Your task to perform on an android device: Open calendar and show me the fourth week of next month Image 0: 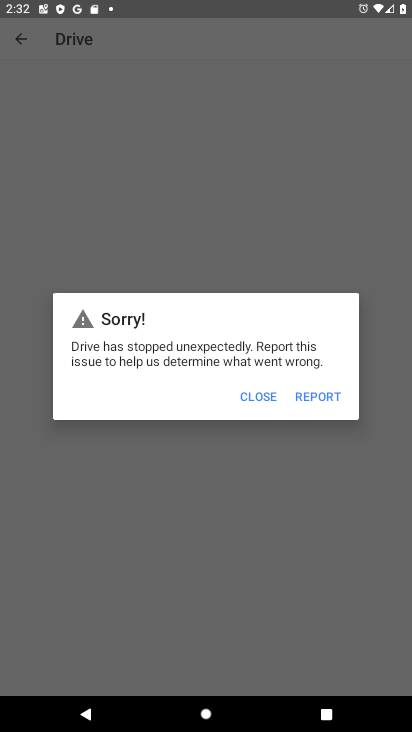
Step 0: press home button
Your task to perform on an android device: Open calendar and show me the fourth week of next month Image 1: 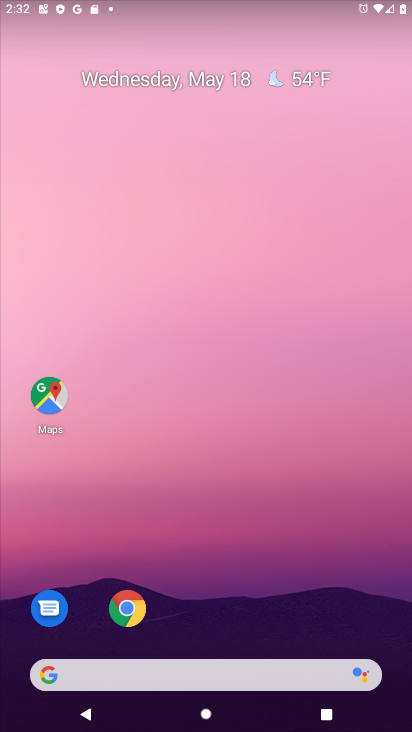
Step 1: drag from (343, 599) to (391, 12)
Your task to perform on an android device: Open calendar and show me the fourth week of next month Image 2: 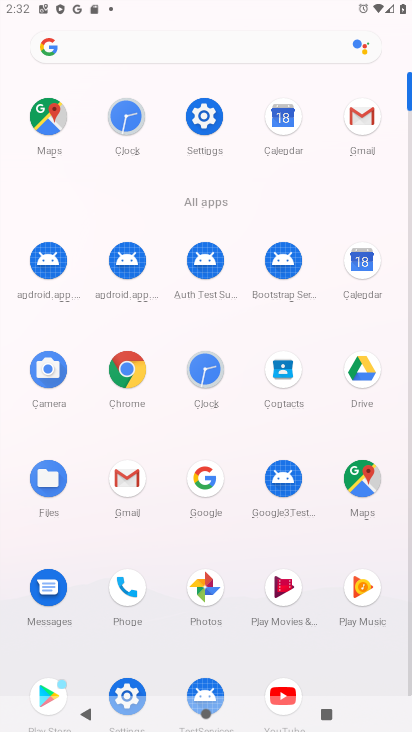
Step 2: click (285, 124)
Your task to perform on an android device: Open calendar and show me the fourth week of next month Image 3: 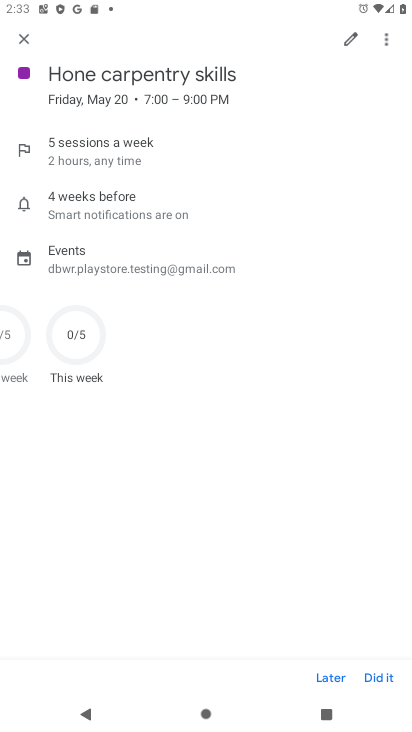
Step 3: click (29, 38)
Your task to perform on an android device: Open calendar and show me the fourth week of next month Image 4: 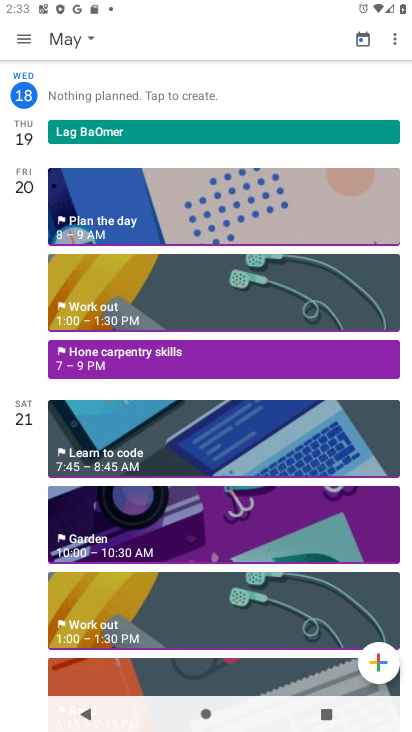
Step 4: click (93, 40)
Your task to perform on an android device: Open calendar and show me the fourth week of next month Image 5: 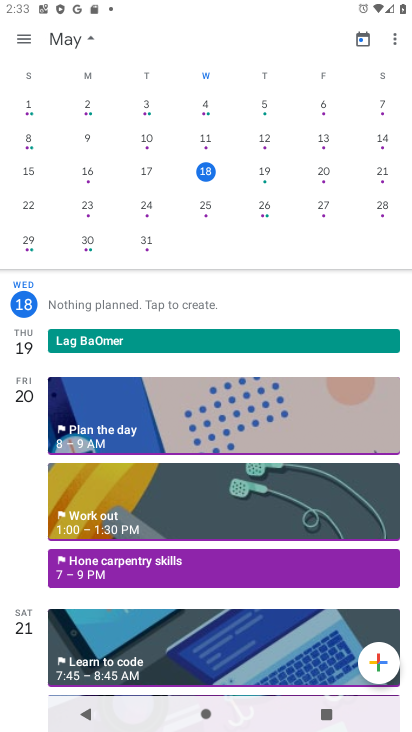
Step 5: click (33, 40)
Your task to perform on an android device: Open calendar and show me the fourth week of next month Image 6: 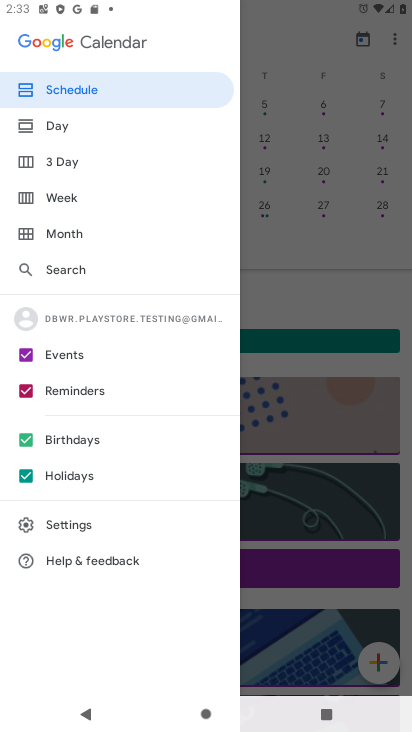
Step 6: click (44, 193)
Your task to perform on an android device: Open calendar and show me the fourth week of next month Image 7: 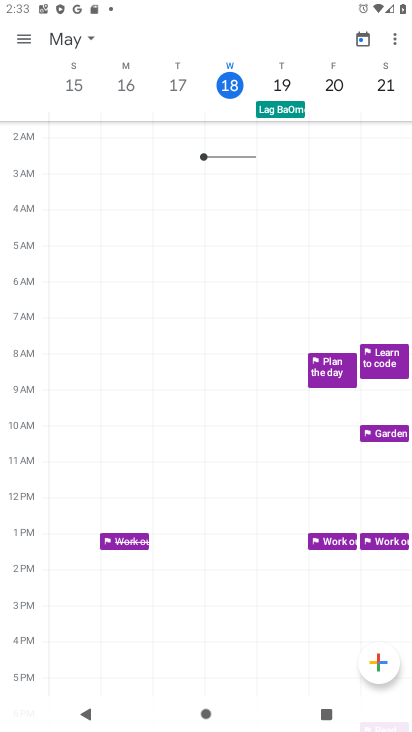
Step 7: click (91, 41)
Your task to perform on an android device: Open calendar and show me the fourth week of next month Image 8: 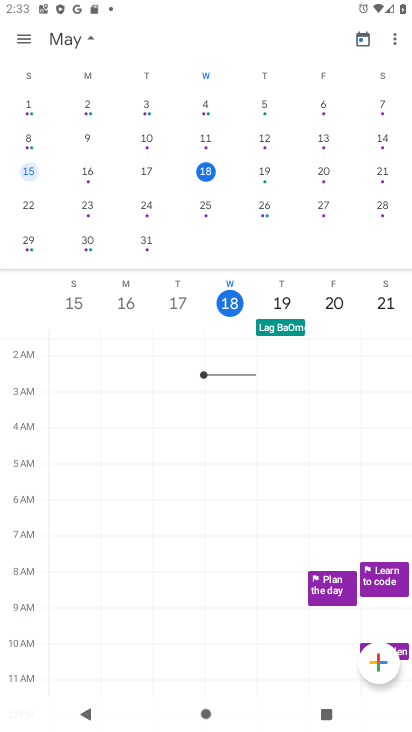
Step 8: task complete